Your task to perform on an android device: change keyboard looks Image 0: 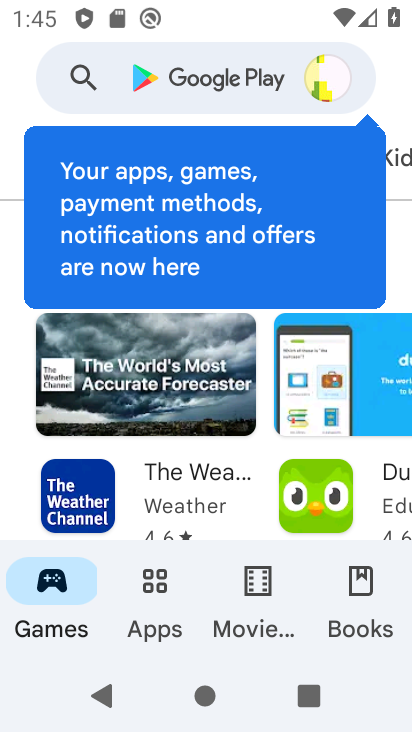
Step 0: press home button
Your task to perform on an android device: change keyboard looks Image 1: 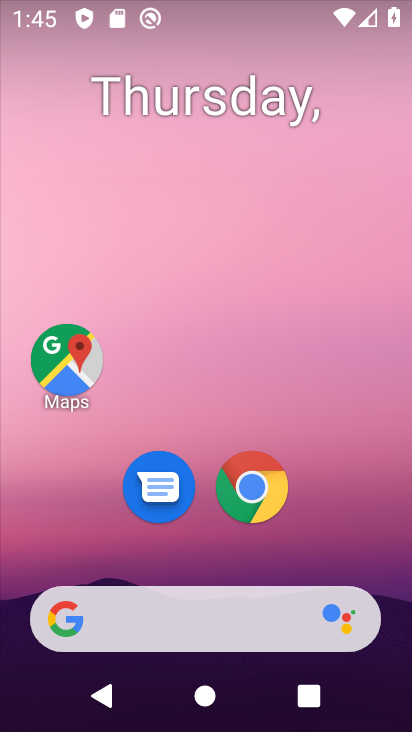
Step 1: drag from (260, 560) to (222, 1)
Your task to perform on an android device: change keyboard looks Image 2: 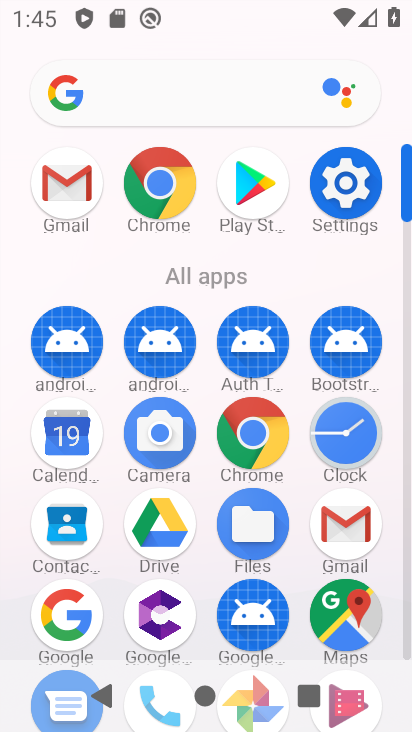
Step 2: click (352, 192)
Your task to perform on an android device: change keyboard looks Image 3: 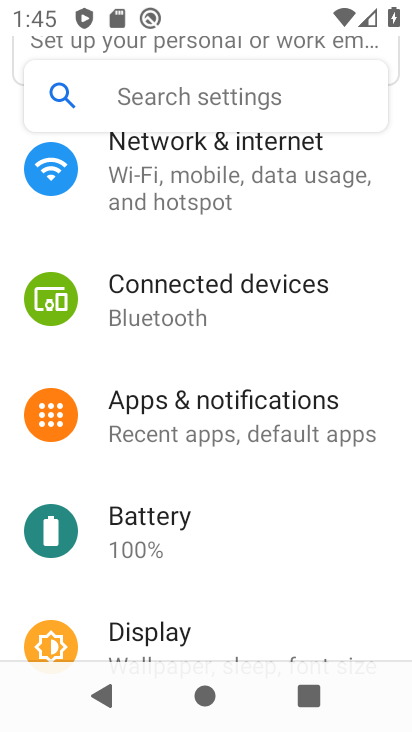
Step 3: drag from (158, 515) to (161, 102)
Your task to perform on an android device: change keyboard looks Image 4: 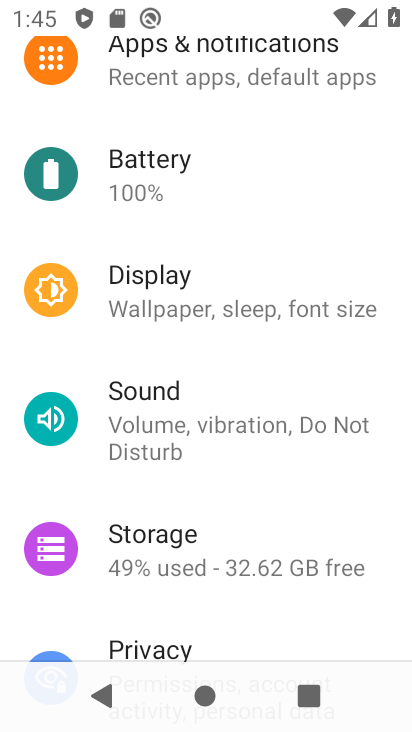
Step 4: drag from (188, 566) to (178, 255)
Your task to perform on an android device: change keyboard looks Image 5: 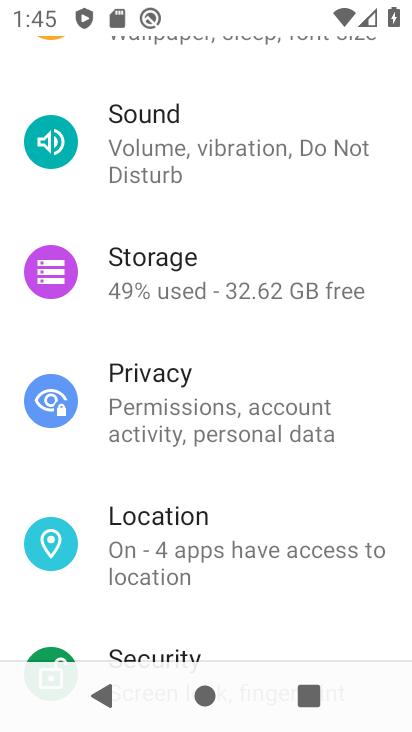
Step 5: drag from (245, 581) to (225, 326)
Your task to perform on an android device: change keyboard looks Image 6: 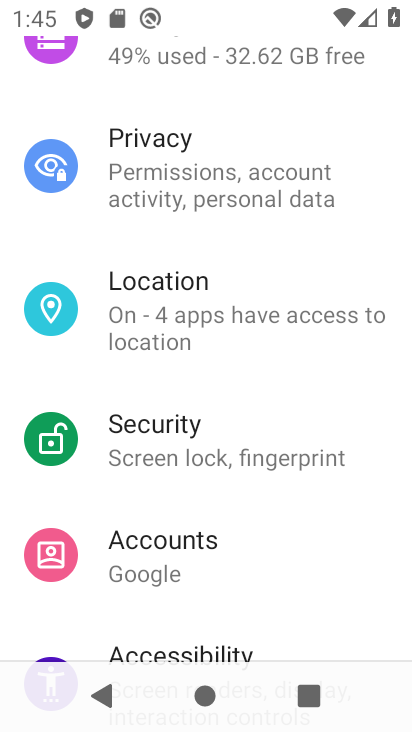
Step 6: drag from (200, 576) to (216, 138)
Your task to perform on an android device: change keyboard looks Image 7: 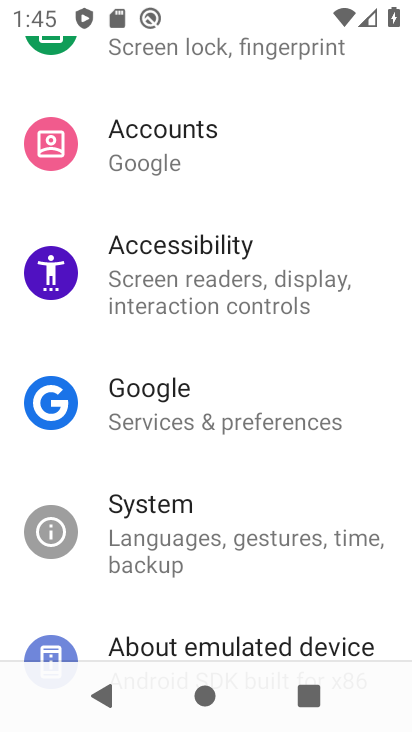
Step 7: click (180, 565)
Your task to perform on an android device: change keyboard looks Image 8: 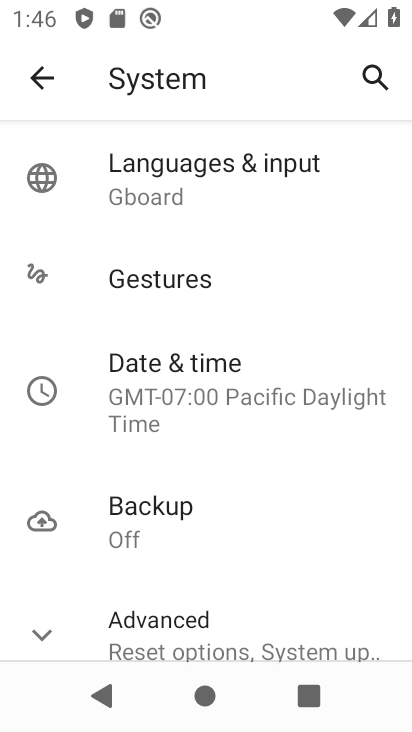
Step 8: click (182, 189)
Your task to perform on an android device: change keyboard looks Image 9: 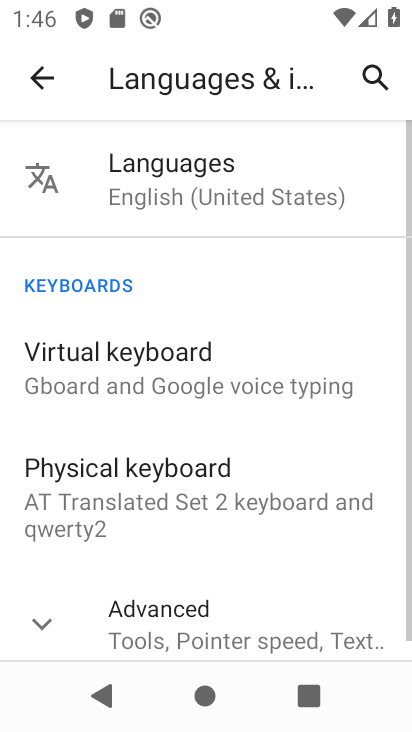
Step 9: click (100, 357)
Your task to perform on an android device: change keyboard looks Image 10: 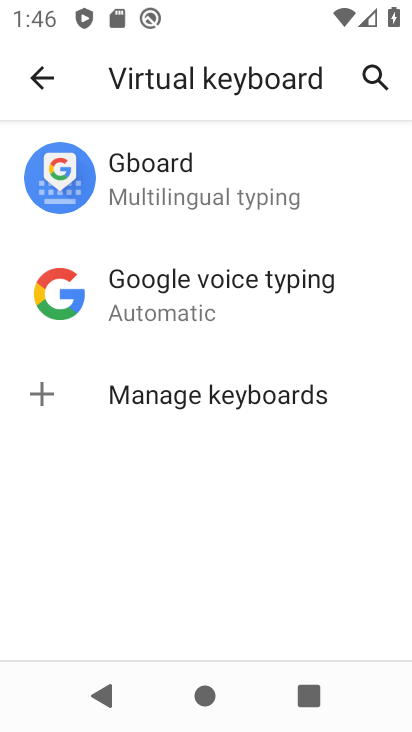
Step 10: click (186, 168)
Your task to perform on an android device: change keyboard looks Image 11: 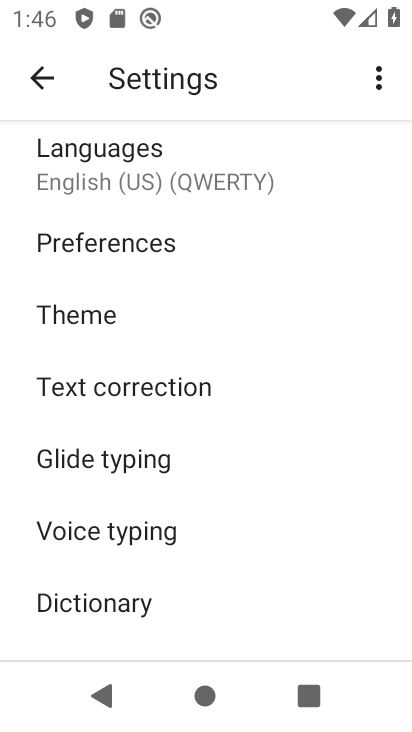
Step 11: click (120, 331)
Your task to perform on an android device: change keyboard looks Image 12: 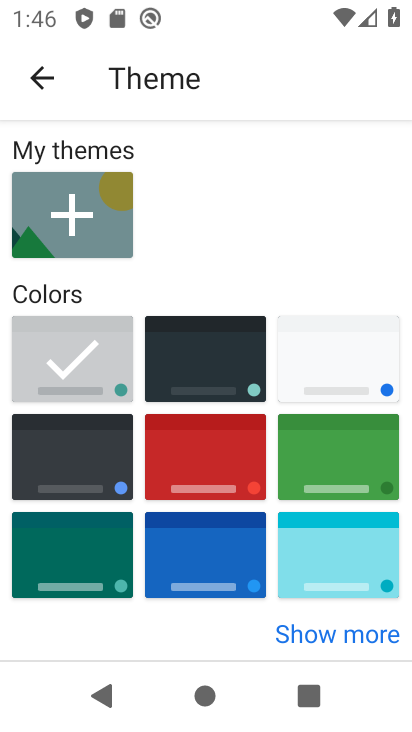
Step 12: click (62, 548)
Your task to perform on an android device: change keyboard looks Image 13: 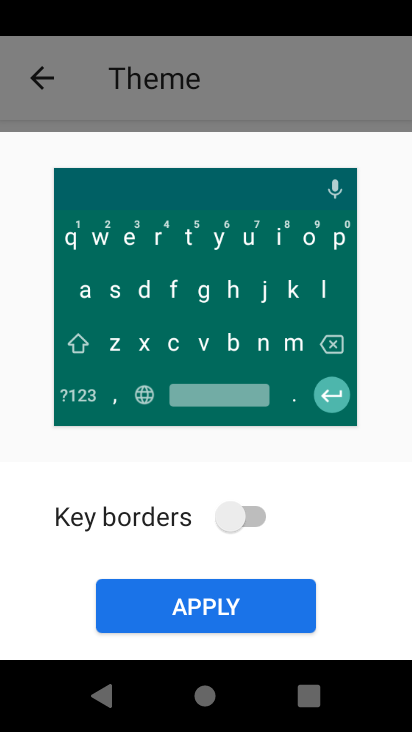
Step 13: click (178, 612)
Your task to perform on an android device: change keyboard looks Image 14: 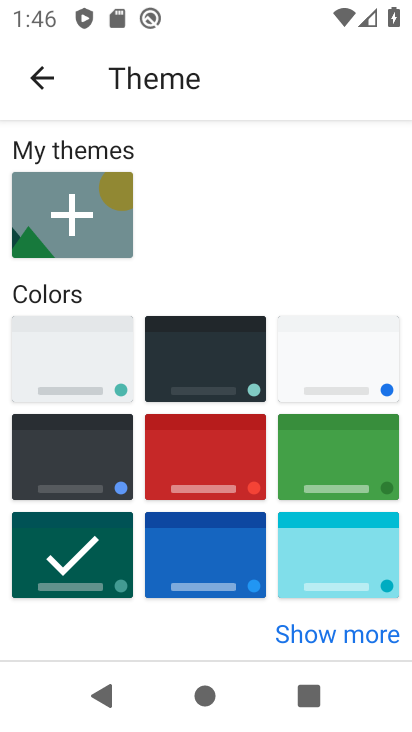
Step 14: task complete